Your task to perform on an android device: Is it going to rain today? Image 0: 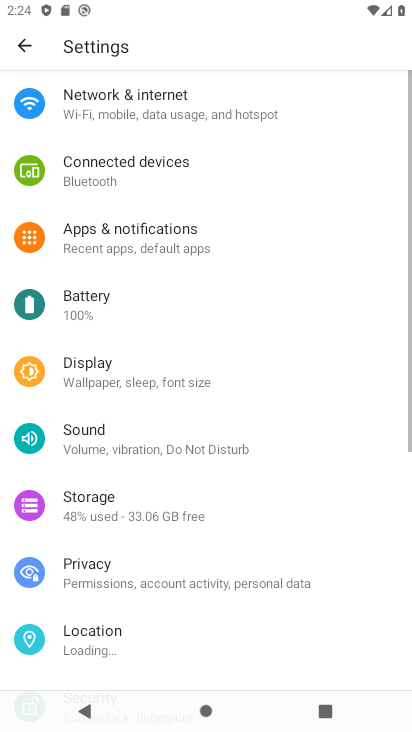
Step 0: press home button
Your task to perform on an android device: Is it going to rain today? Image 1: 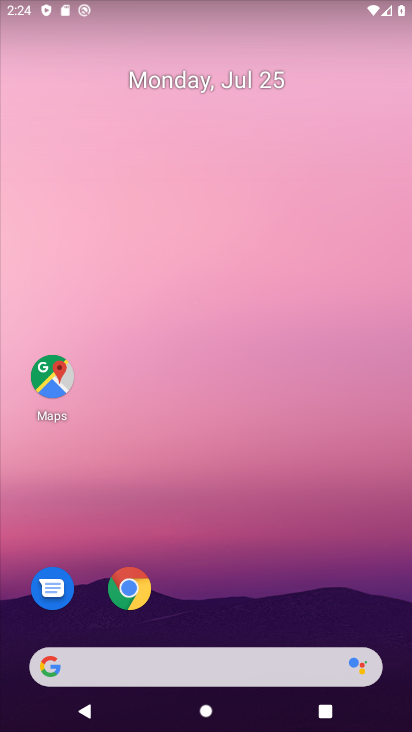
Step 1: drag from (246, 560) to (247, 294)
Your task to perform on an android device: Is it going to rain today? Image 2: 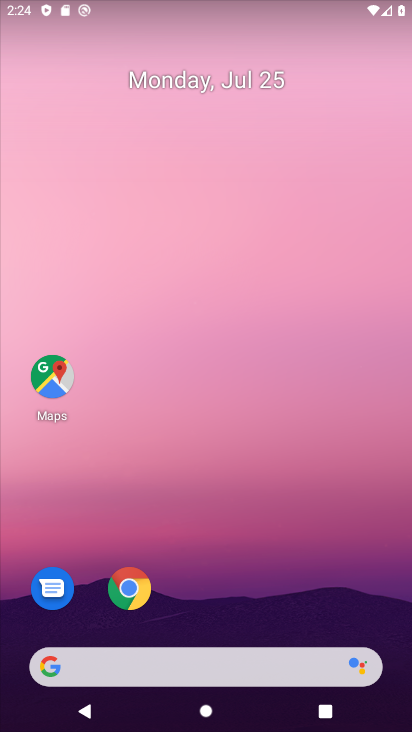
Step 2: drag from (243, 715) to (255, 320)
Your task to perform on an android device: Is it going to rain today? Image 3: 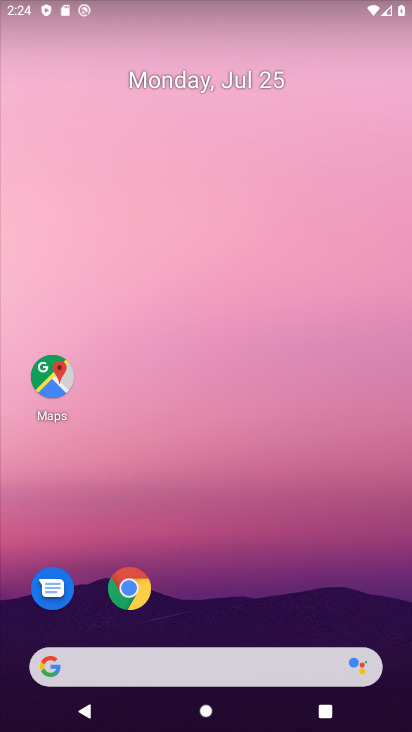
Step 3: drag from (235, 654) to (232, 198)
Your task to perform on an android device: Is it going to rain today? Image 4: 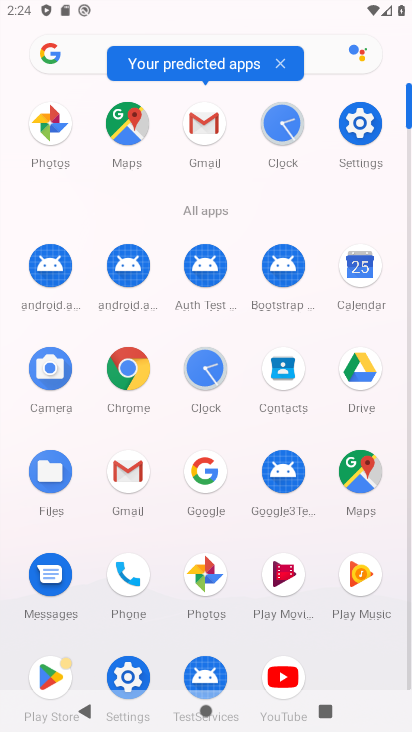
Step 4: click (217, 469)
Your task to perform on an android device: Is it going to rain today? Image 5: 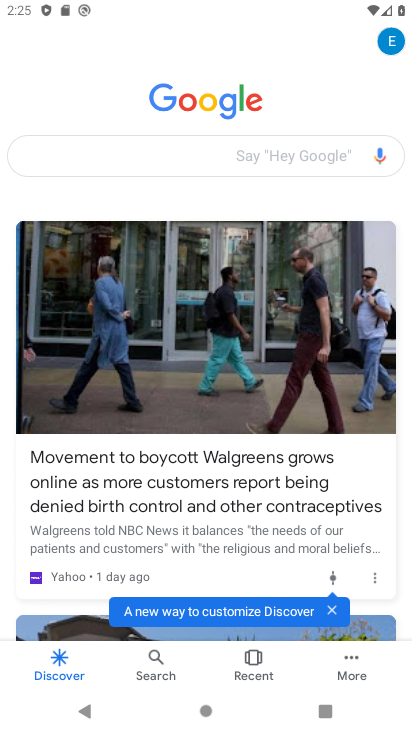
Step 5: click (172, 151)
Your task to perform on an android device: Is it going to rain today? Image 6: 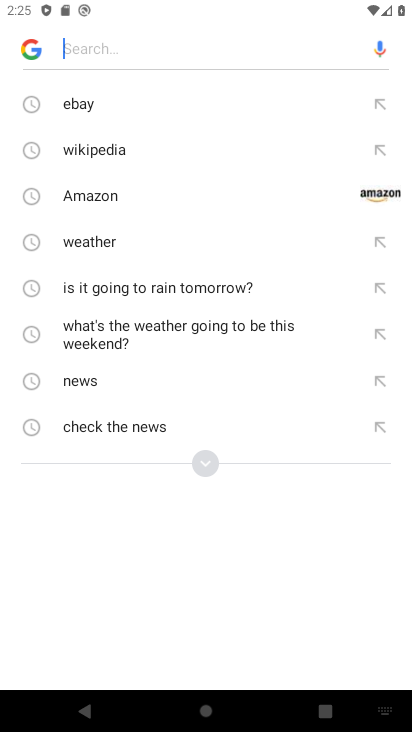
Step 6: click (89, 238)
Your task to perform on an android device: Is it going to rain today? Image 7: 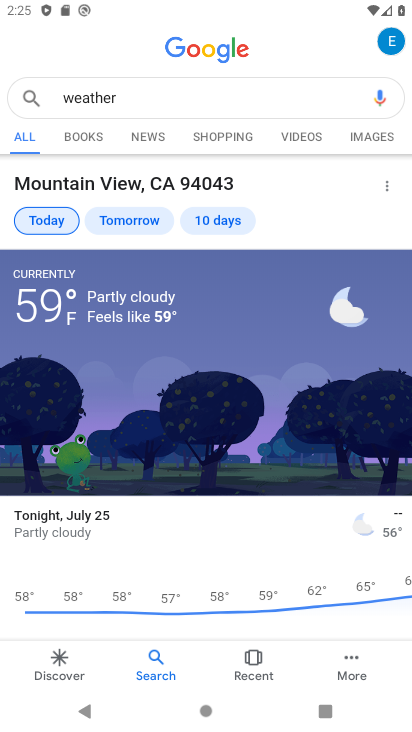
Step 7: click (52, 222)
Your task to perform on an android device: Is it going to rain today? Image 8: 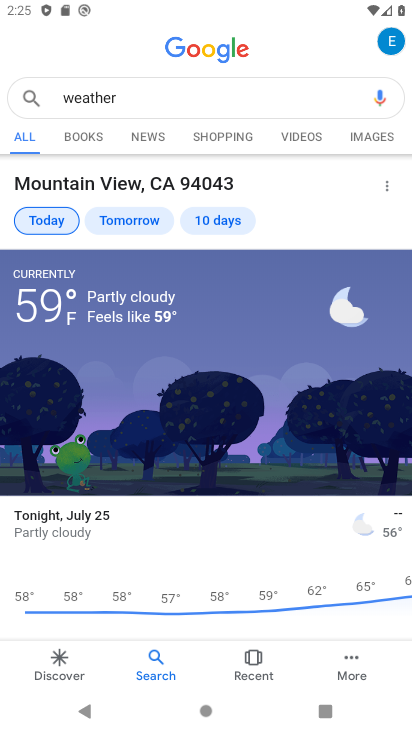
Step 8: task complete